Your task to perform on an android device: What's the weather? Image 0: 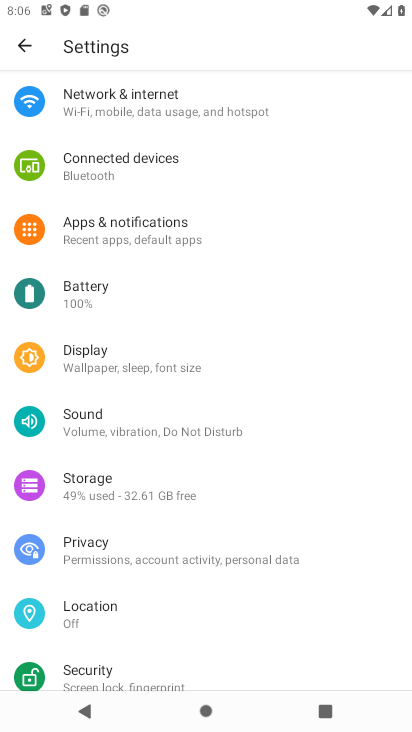
Step 0: press home button
Your task to perform on an android device: What's the weather? Image 1: 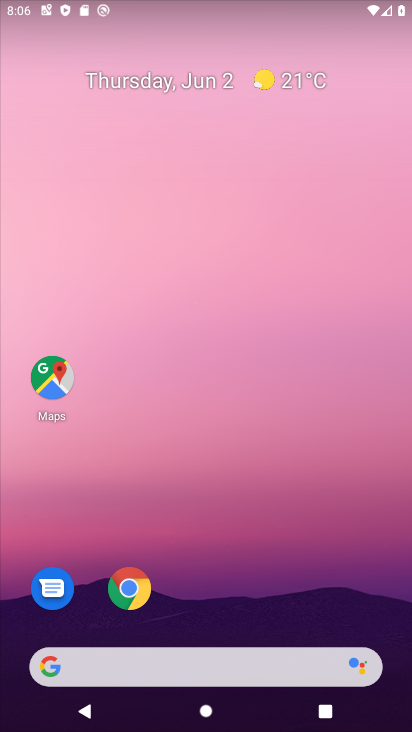
Step 1: drag from (158, 661) to (201, 60)
Your task to perform on an android device: What's the weather? Image 2: 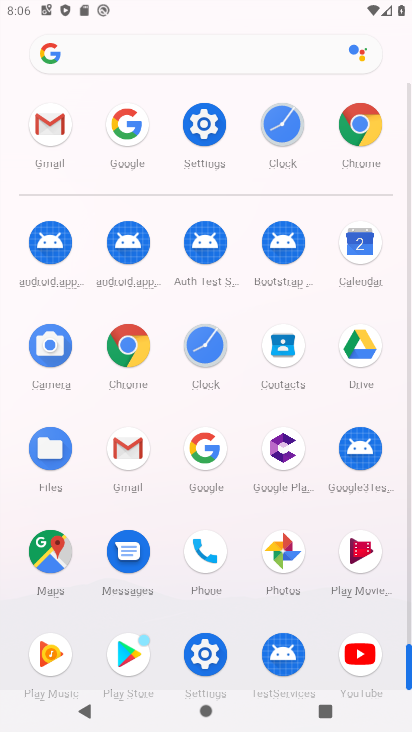
Step 2: click (200, 475)
Your task to perform on an android device: What's the weather? Image 3: 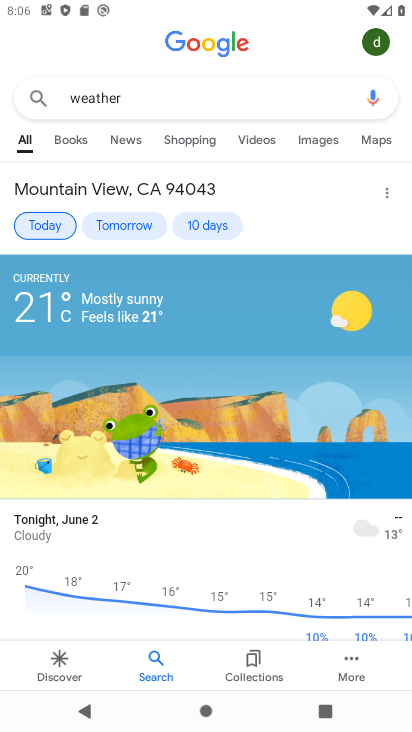
Step 3: task complete